Your task to perform on an android device: turn off location history Image 0: 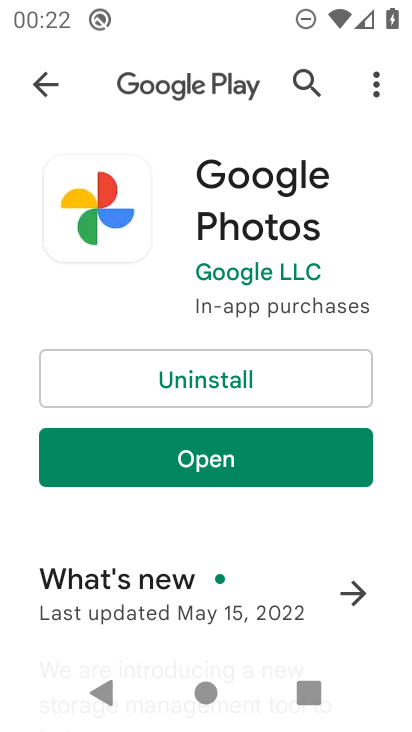
Step 0: drag from (222, 582) to (340, 62)
Your task to perform on an android device: turn off location history Image 1: 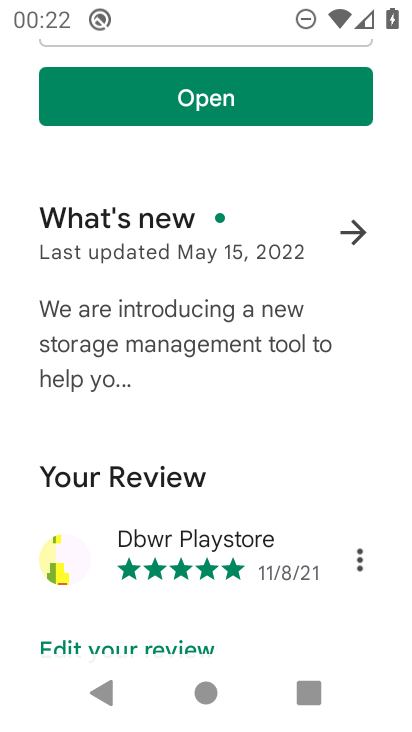
Step 1: press home button
Your task to perform on an android device: turn off location history Image 2: 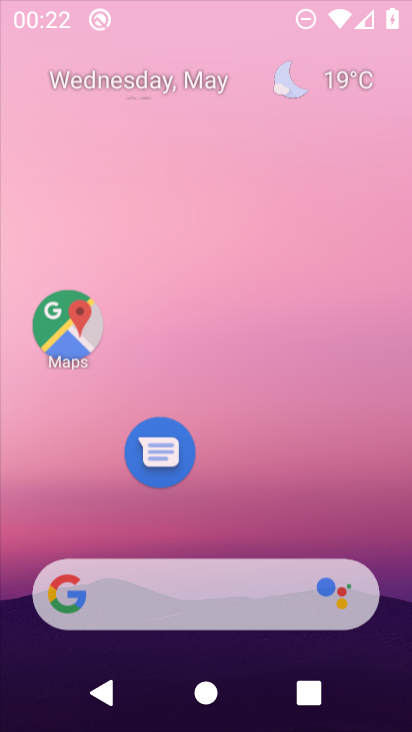
Step 2: drag from (237, 587) to (326, 200)
Your task to perform on an android device: turn off location history Image 3: 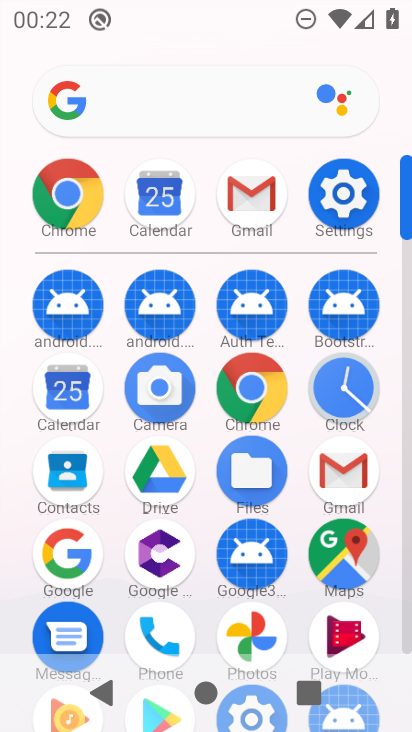
Step 3: click (330, 201)
Your task to perform on an android device: turn off location history Image 4: 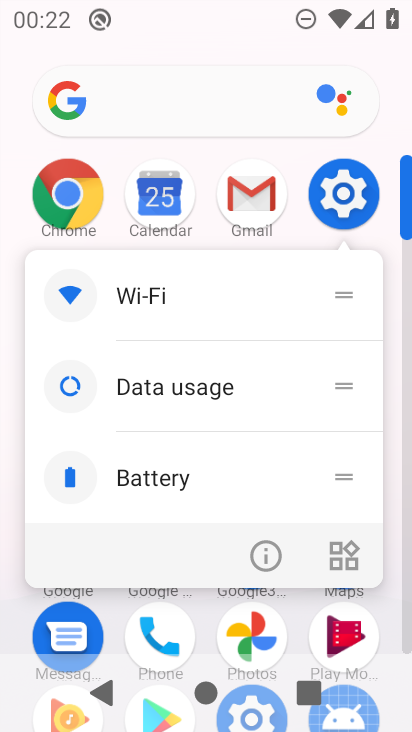
Step 4: click (253, 546)
Your task to perform on an android device: turn off location history Image 5: 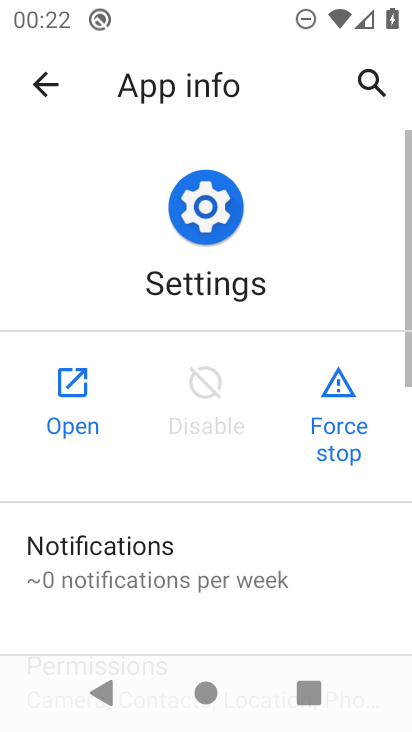
Step 5: click (69, 395)
Your task to perform on an android device: turn off location history Image 6: 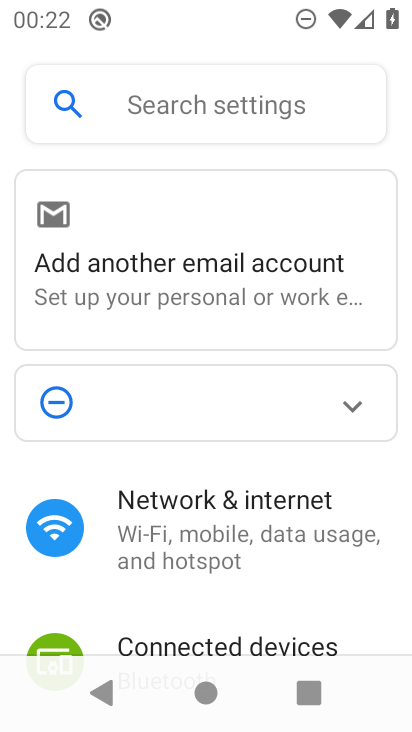
Step 6: drag from (198, 579) to (248, 211)
Your task to perform on an android device: turn off location history Image 7: 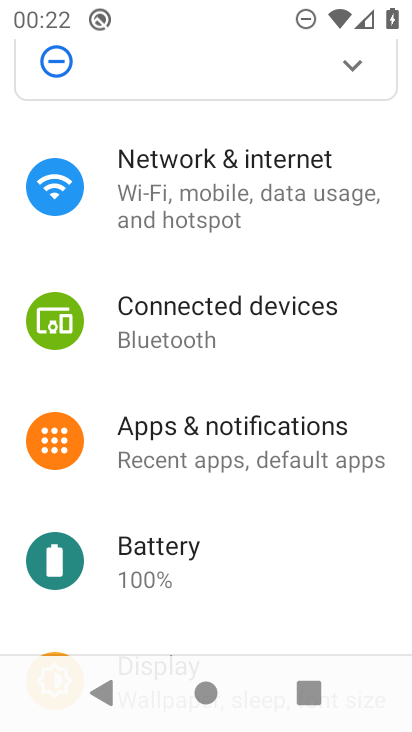
Step 7: drag from (210, 486) to (319, 209)
Your task to perform on an android device: turn off location history Image 8: 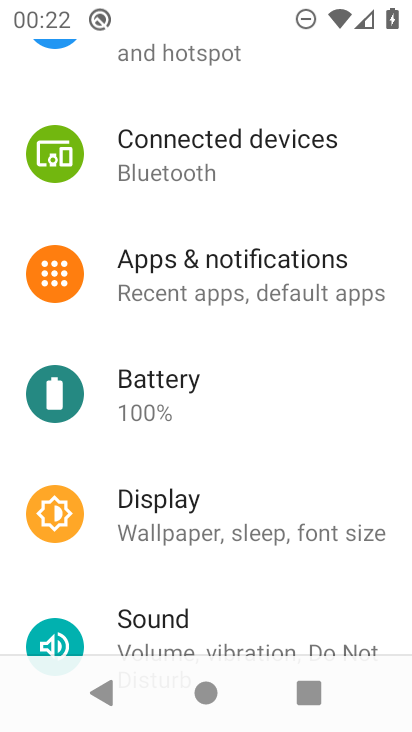
Step 8: drag from (237, 551) to (395, 57)
Your task to perform on an android device: turn off location history Image 9: 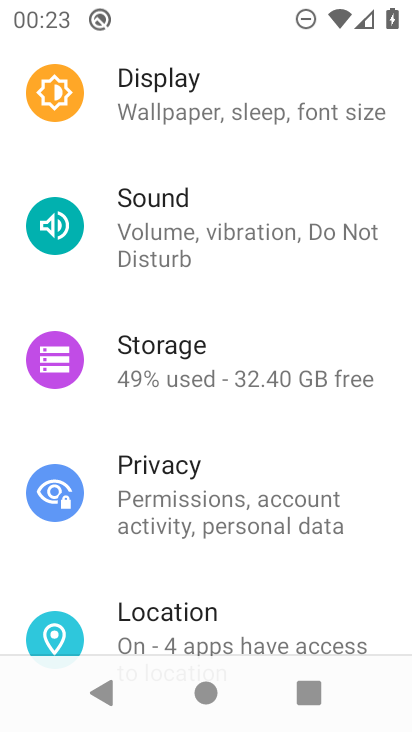
Step 9: click (166, 612)
Your task to perform on an android device: turn off location history Image 10: 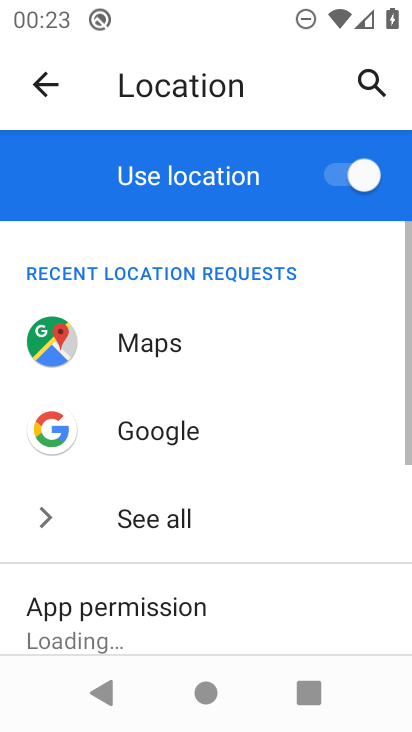
Step 10: drag from (180, 608) to (243, 231)
Your task to perform on an android device: turn off location history Image 11: 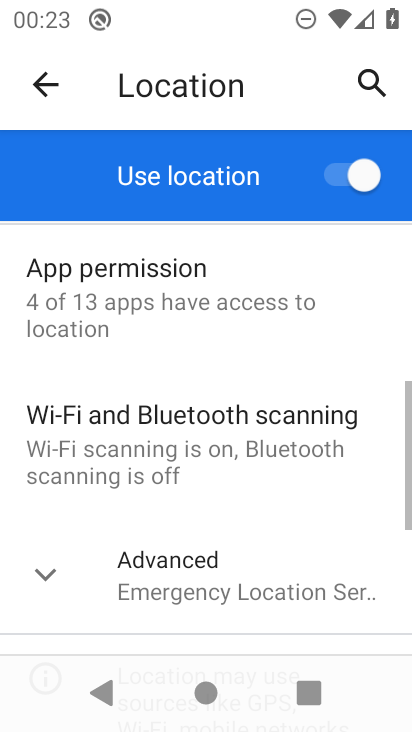
Step 11: click (169, 542)
Your task to perform on an android device: turn off location history Image 12: 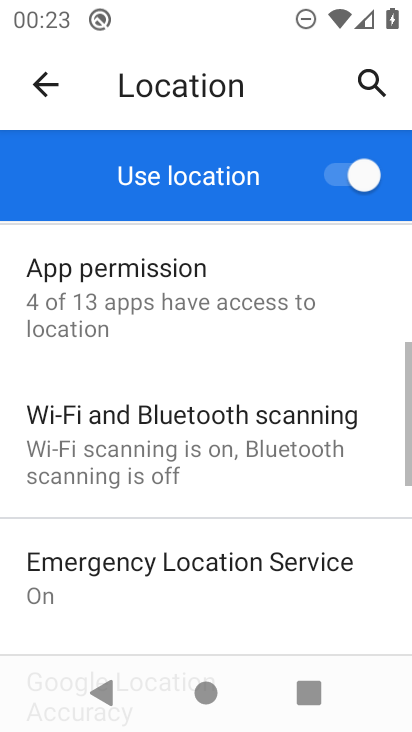
Step 12: drag from (235, 548) to (306, 143)
Your task to perform on an android device: turn off location history Image 13: 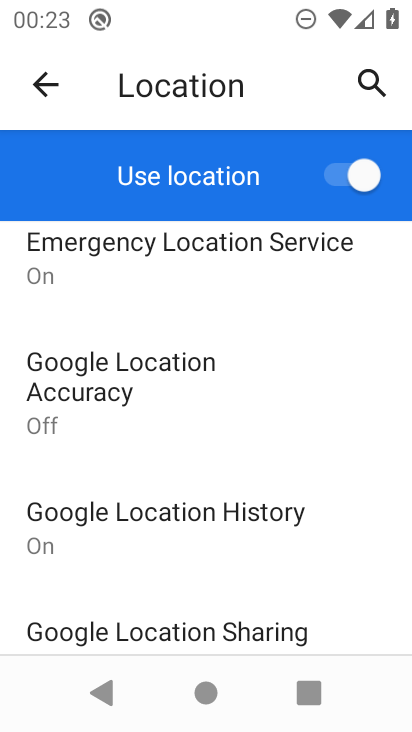
Step 13: click (220, 526)
Your task to perform on an android device: turn off location history Image 14: 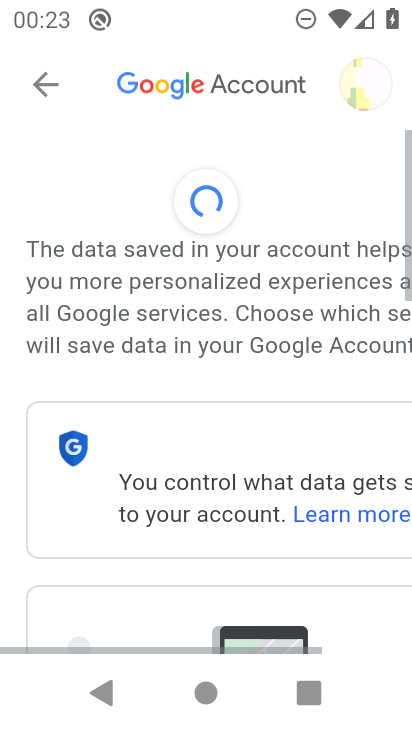
Step 14: drag from (241, 567) to (283, 99)
Your task to perform on an android device: turn off location history Image 15: 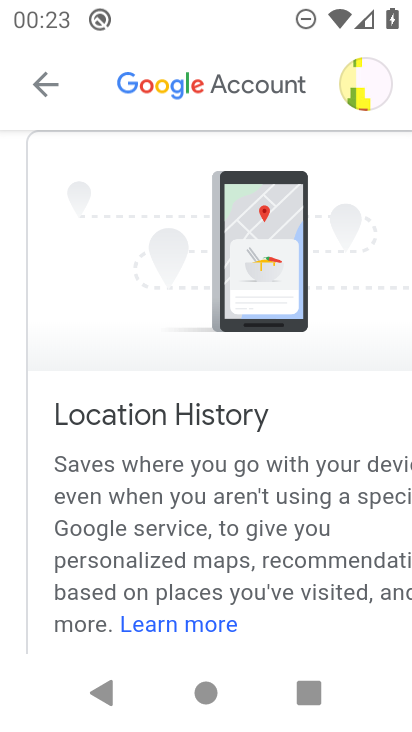
Step 15: drag from (274, 499) to (292, 167)
Your task to perform on an android device: turn off location history Image 16: 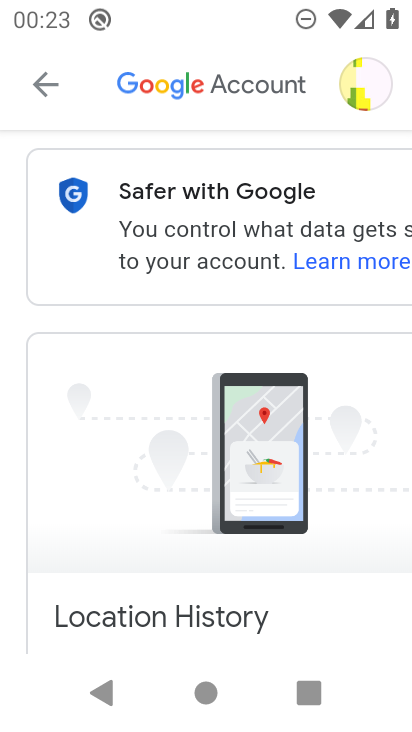
Step 16: drag from (145, 635) to (241, 156)
Your task to perform on an android device: turn off location history Image 17: 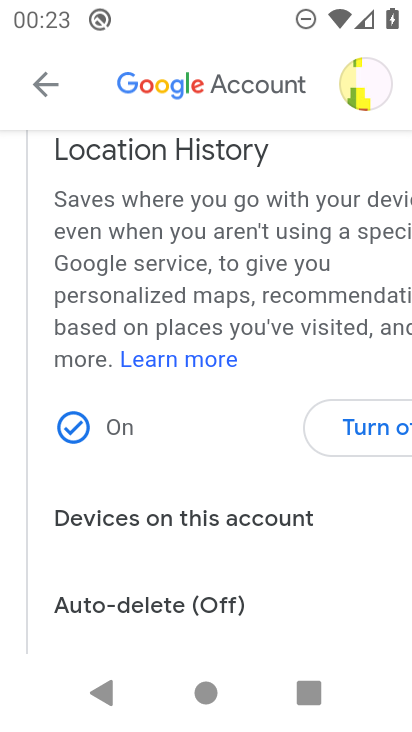
Step 17: click (371, 433)
Your task to perform on an android device: turn off location history Image 18: 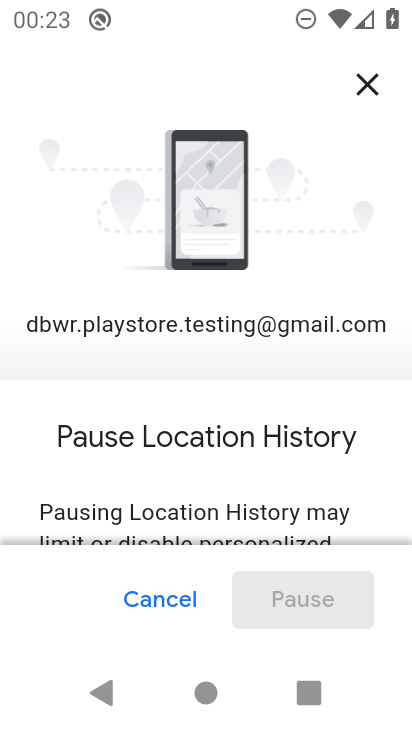
Step 18: drag from (260, 481) to (309, 14)
Your task to perform on an android device: turn off location history Image 19: 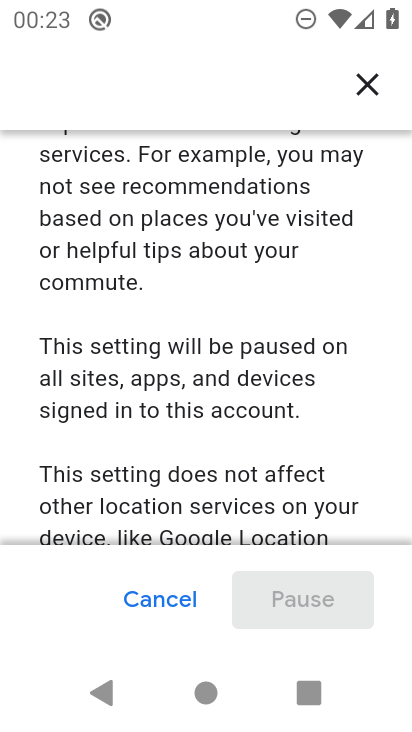
Step 19: drag from (177, 454) to (288, 63)
Your task to perform on an android device: turn off location history Image 20: 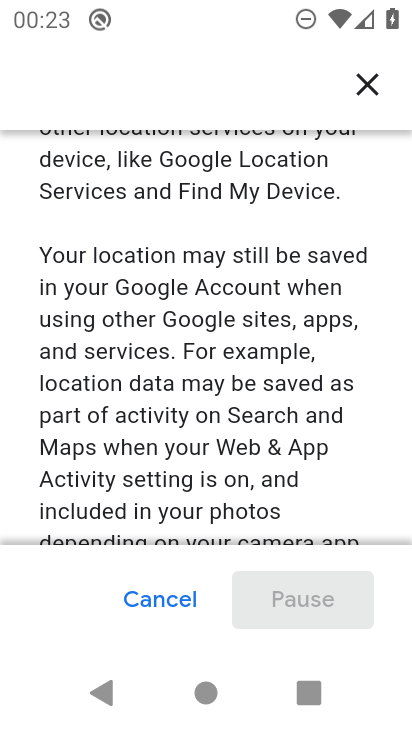
Step 20: drag from (196, 456) to (291, 92)
Your task to perform on an android device: turn off location history Image 21: 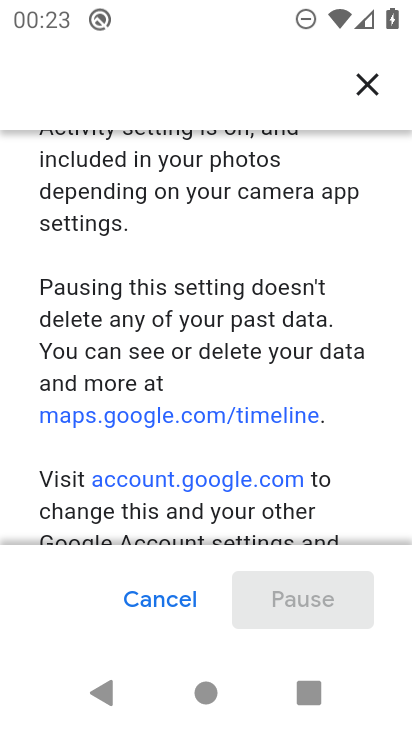
Step 21: drag from (213, 477) to (312, 73)
Your task to perform on an android device: turn off location history Image 22: 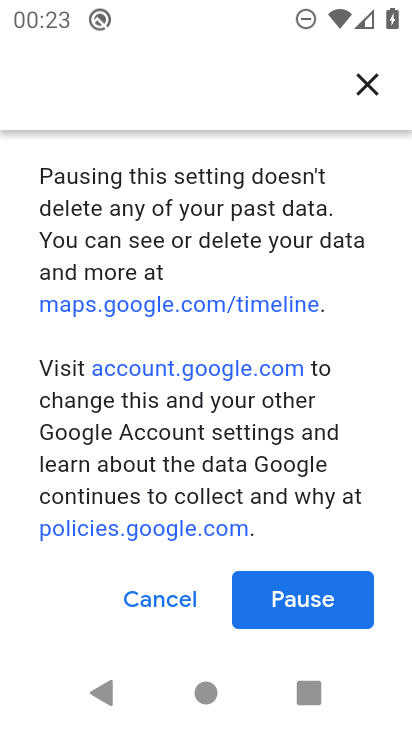
Step 22: click (271, 599)
Your task to perform on an android device: turn off location history Image 23: 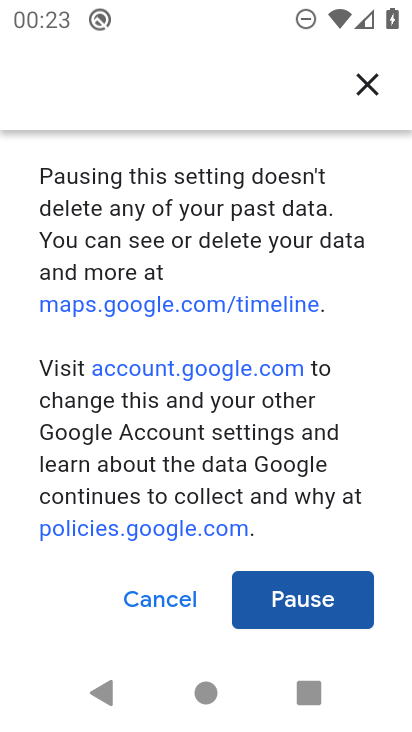
Step 23: task complete